Your task to perform on an android device: Show me popular games on the Play Store Image 0: 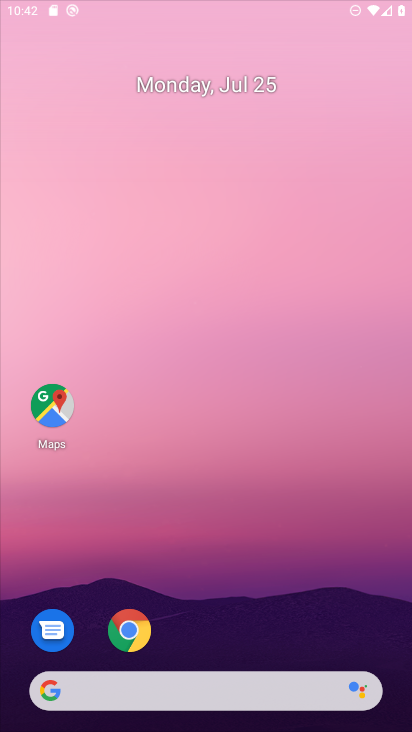
Step 0: drag from (311, 573) to (306, 85)
Your task to perform on an android device: Show me popular games on the Play Store Image 1: 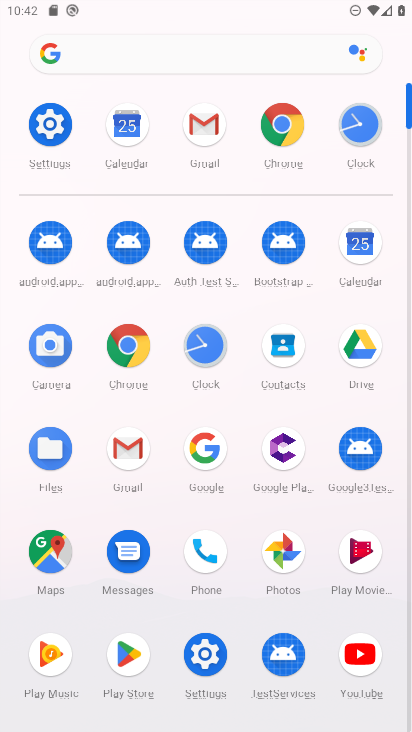
Step 1: click (121, 662)
Your task to perform on an android device: Show me popular games on the Play Store Image 2: 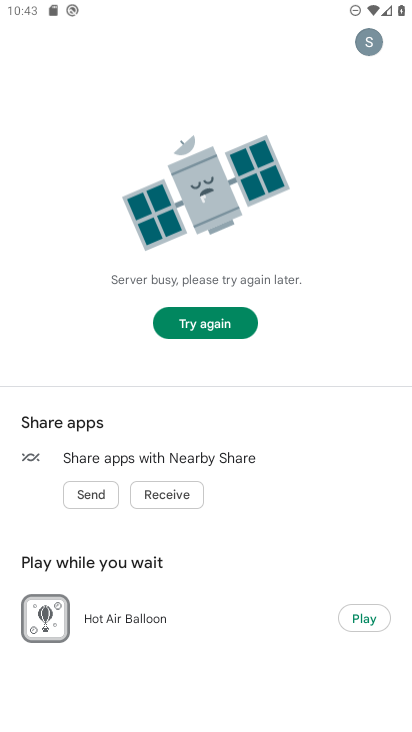
Step 2: task complete